Your task to perform on an android device: check android version Image 0: 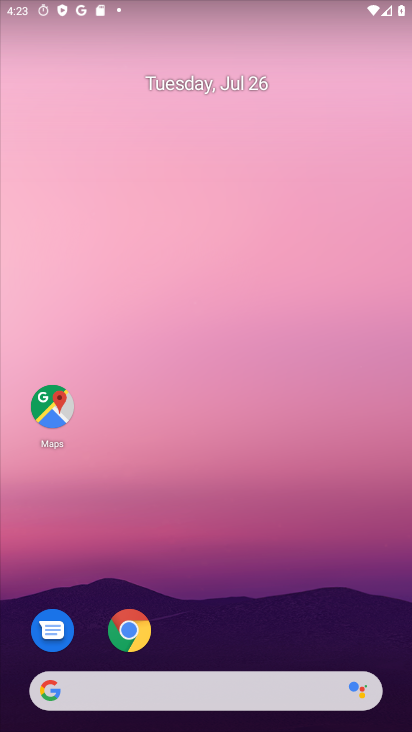
Step 0: drag from (312, 577) to (200, 2)
Your task to perform on an android device: check android version Image 1: 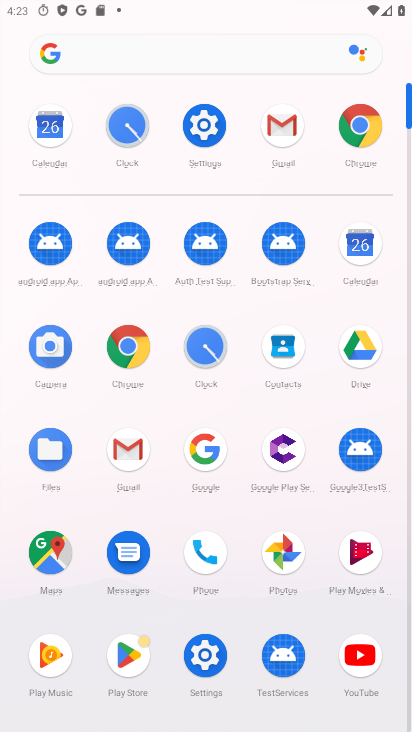
Step 1: click (206, 118)
Your task to perform on an android device: check android version Image 2: 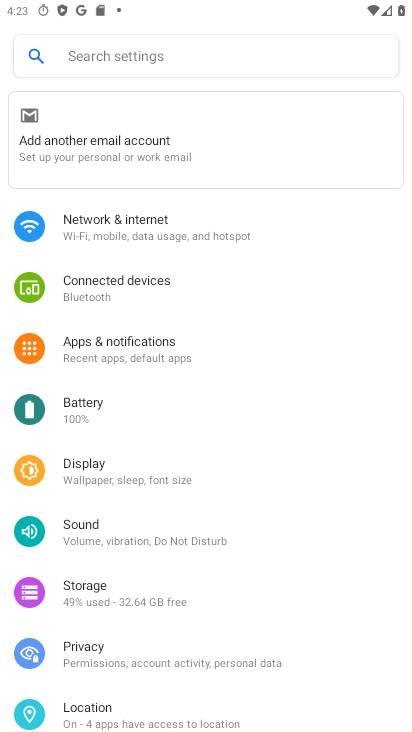
Step 2: drag from (223, 656) to (217, 24)
Your task to perform on an android device: check android version Image 3: 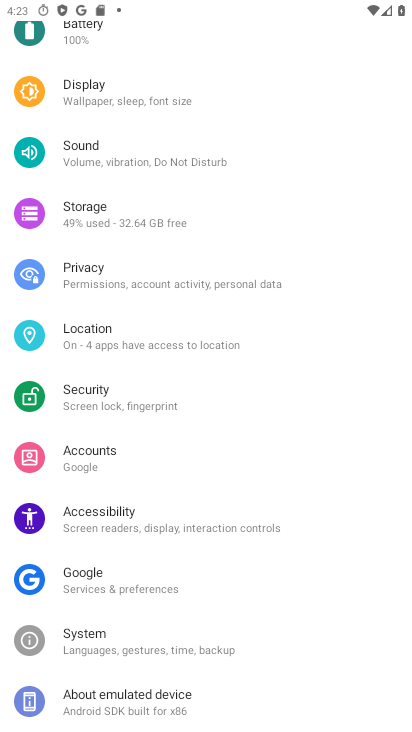
Step 3: click (144, 715)
Your task to perform on an android device: check android version Image 4: 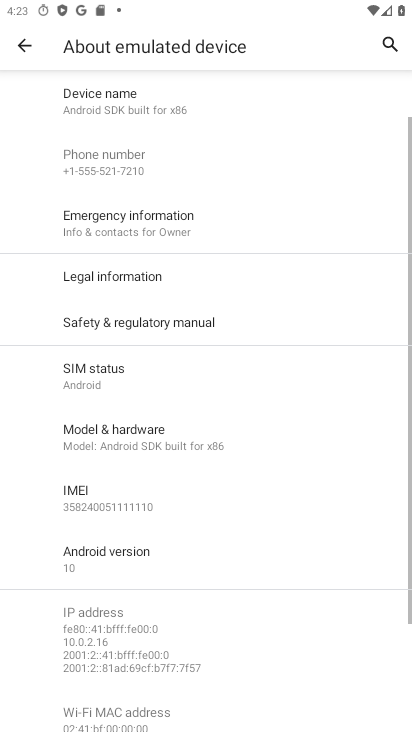
Step 4: drag from (231, 655) to (239, 130)
Your task to perform on an android device: check android version Image 5: 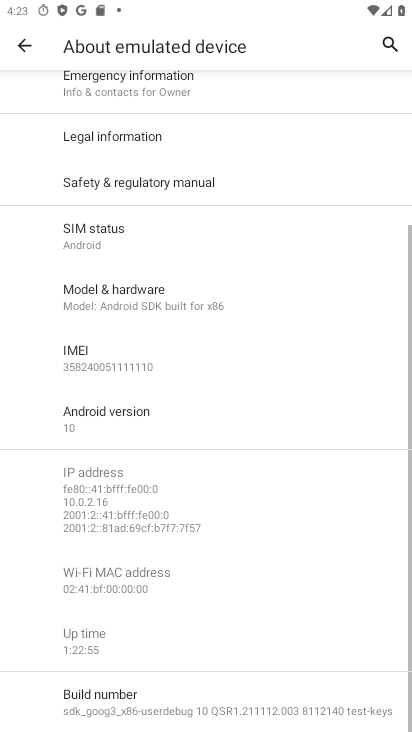
Step 5: click (122, 413)
Your task to perform on an android device: check android version Image 6: 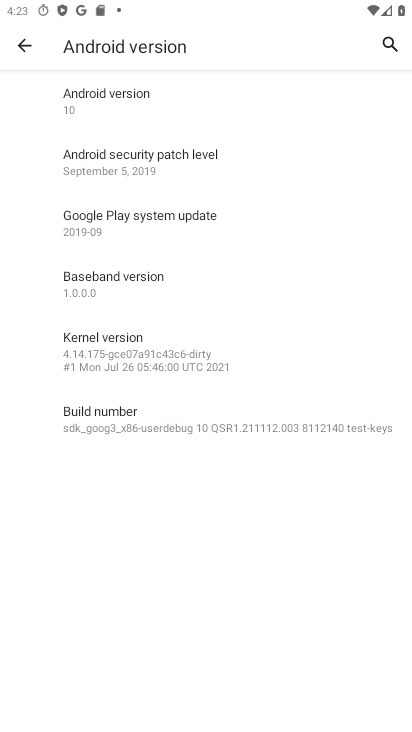
Step 6: task complete